Your task to perform on an android device: stop showing notifications on the lock screen Image 0: 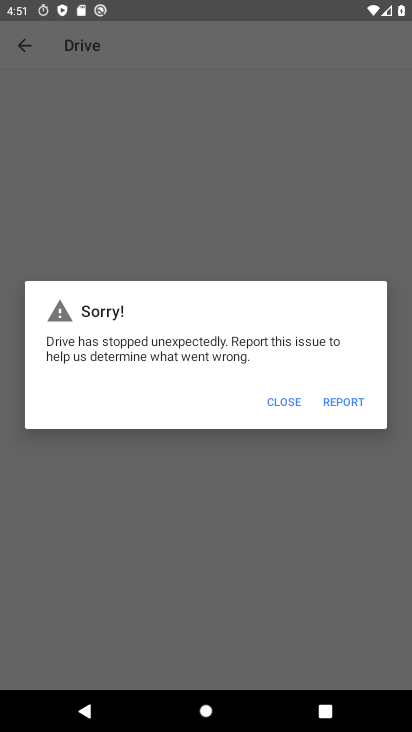
Step 0: press home button
Your task to perform on an android device: stop showing notifications on the lock screen Image 1: 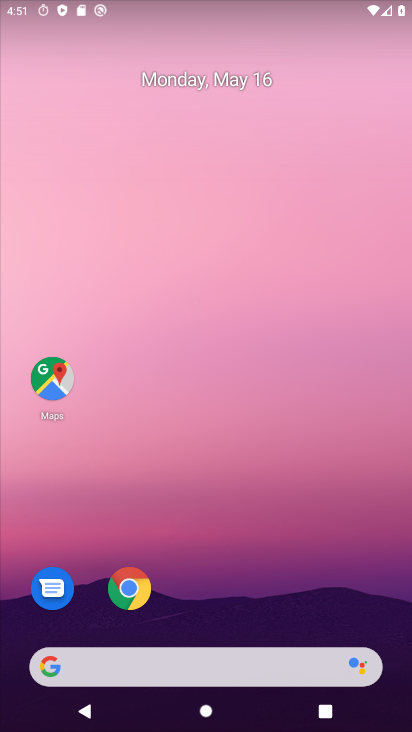
Step 1: drag from (204, 601) to (249, 258)
Your task to perform on an android device: stop showing notifications on the lock screen Image 2: 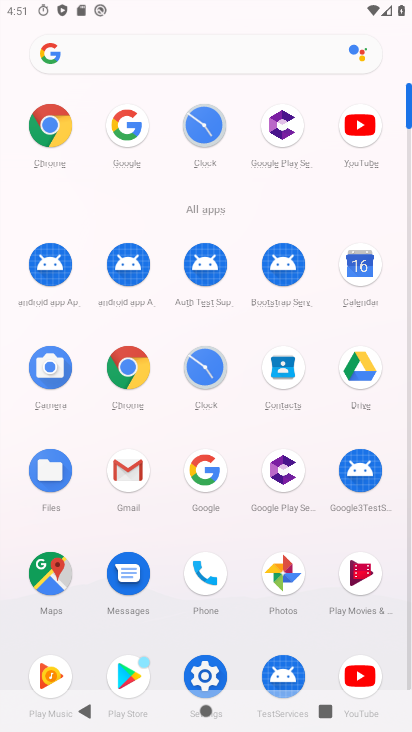
Step 2: click (214, 672)
Your task to perform on an android device: stop showing notifications on the lock screen Image 3: 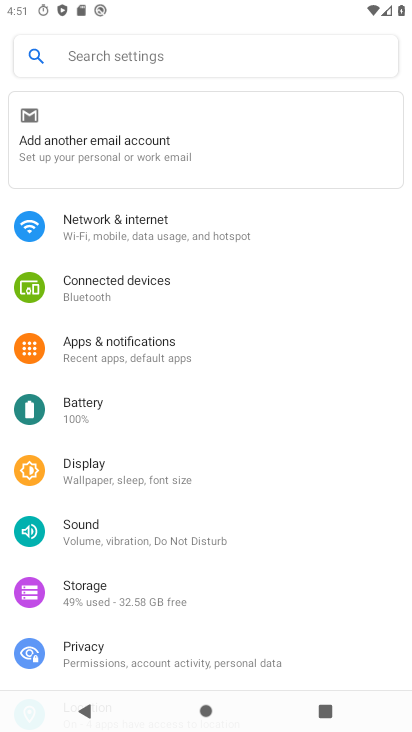
Step 3: click (182, 349)
Your task to perform on an android device: stop showing notifications on the lock screen Image 4: 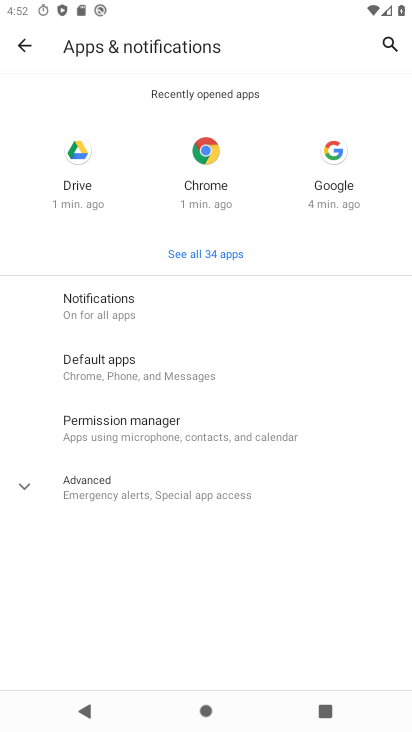
Step 4: click (168, 312)
Your task to perform on an android device: stop showing notifications on the lock screen Image 5: 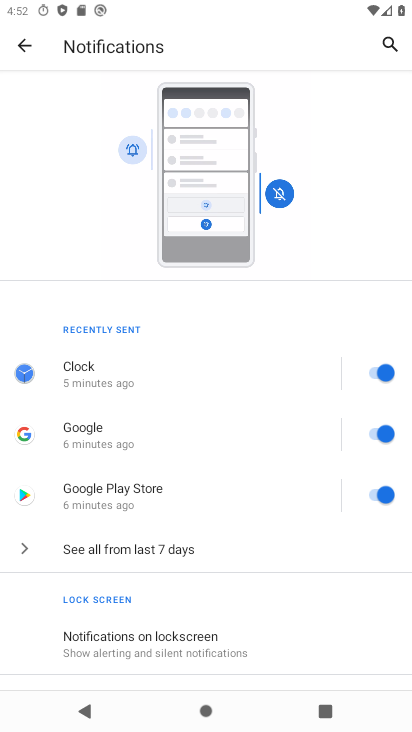
Step 5: click (228, 652)
Your task to perform on an android device: stop showing notifications on the lock screen Image 6: 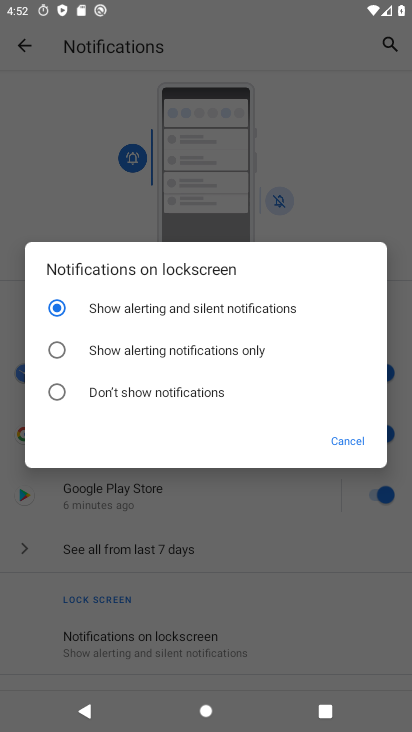
Step 6: click (178, 385)
Your task to perform on an android device: stop showing notifications on the lock screen Image 7: 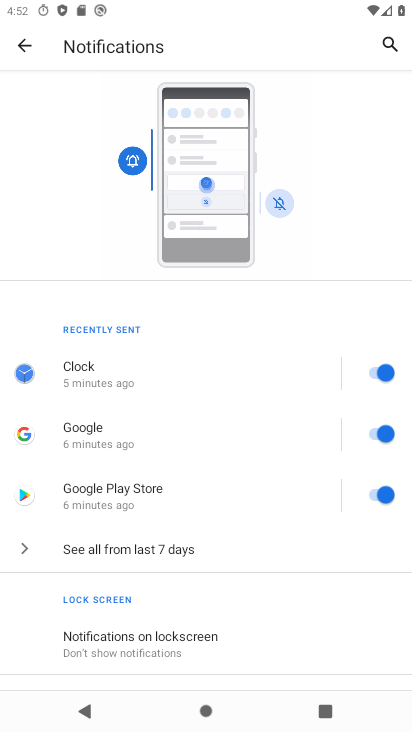
Step 7: task complete